Your task to perform on an android device: Open Amazon Image 0: 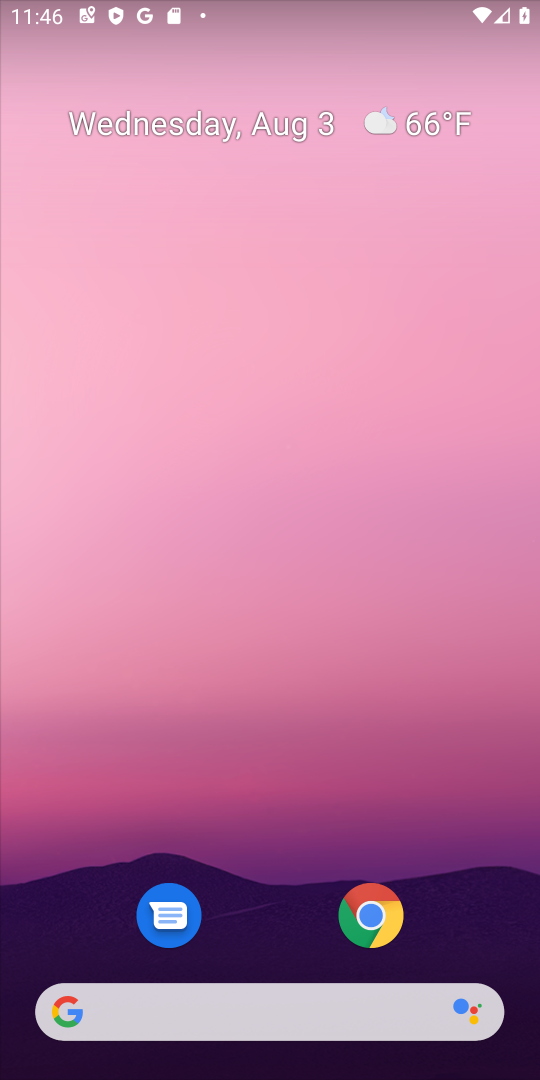
Step 0: drag from (276, 952) to (240, 31)
Your task to perform on an android device: Open Amazon Image 1: 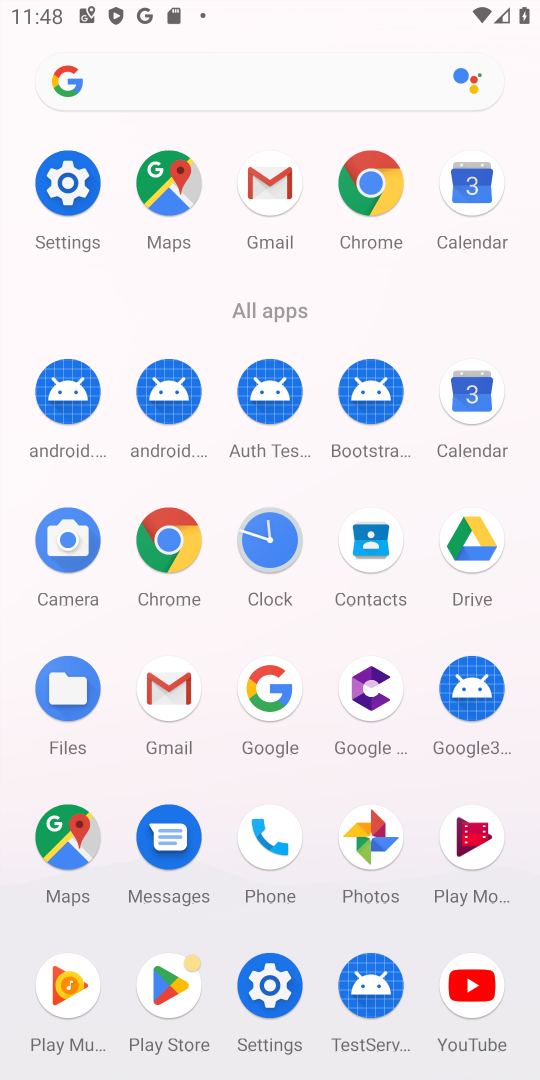
Step 1: click (356, 208)
Your task to perform on an android device: Open Amazon Image 2: 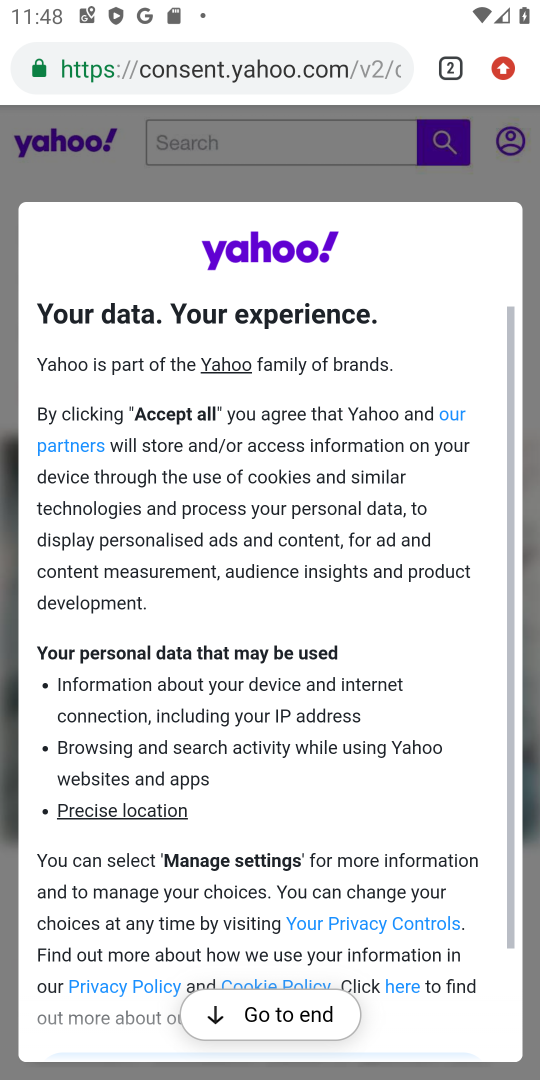
Step 2: click (95, 76)
Your task to perform on an android device: Open Amazon Image 3: 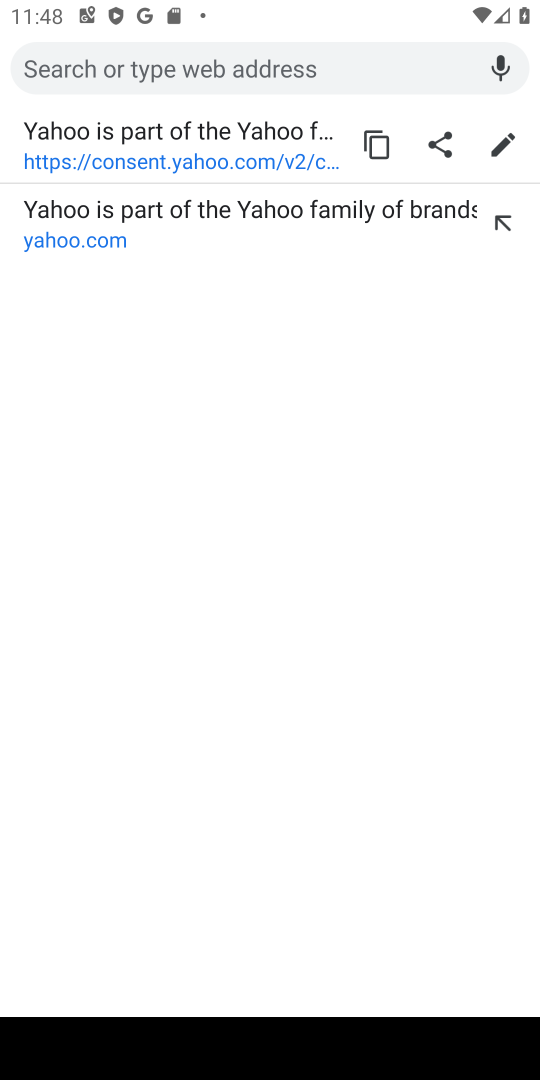
Step 3: type "Yahoo"
Your task to perform on an android device: Open Amazon Image 4: 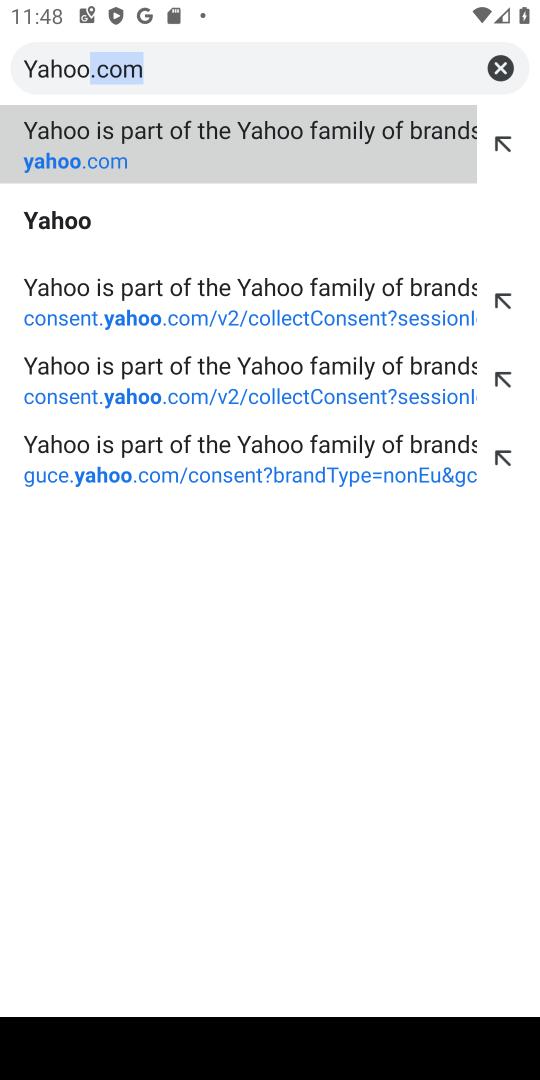
Step 4: type ""
Your task to perform on an android device: Open Amazon Image 5: 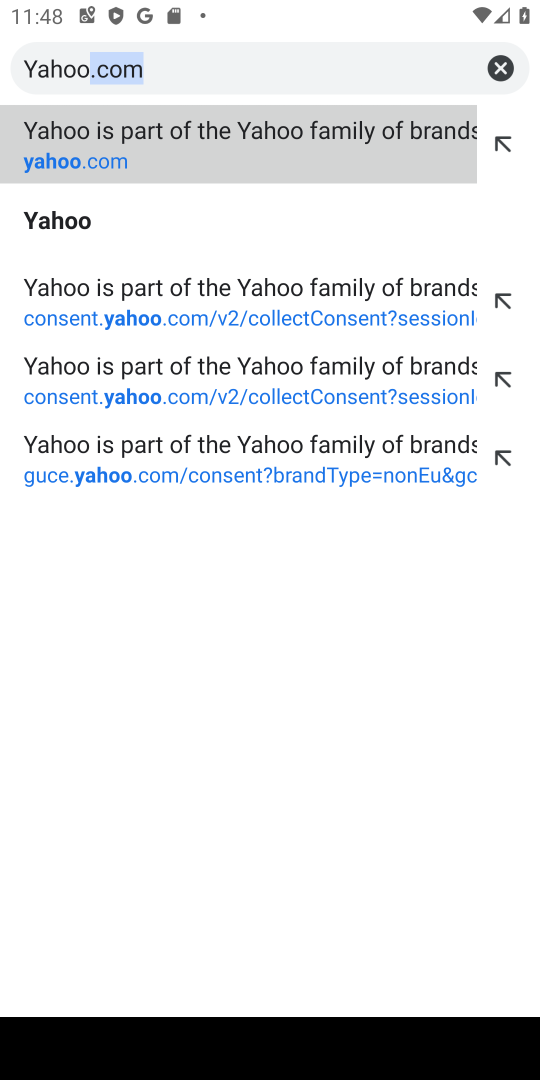
Step 5: click (508, 72)
Your task to perform on an android device: Open Amazon Image 6: 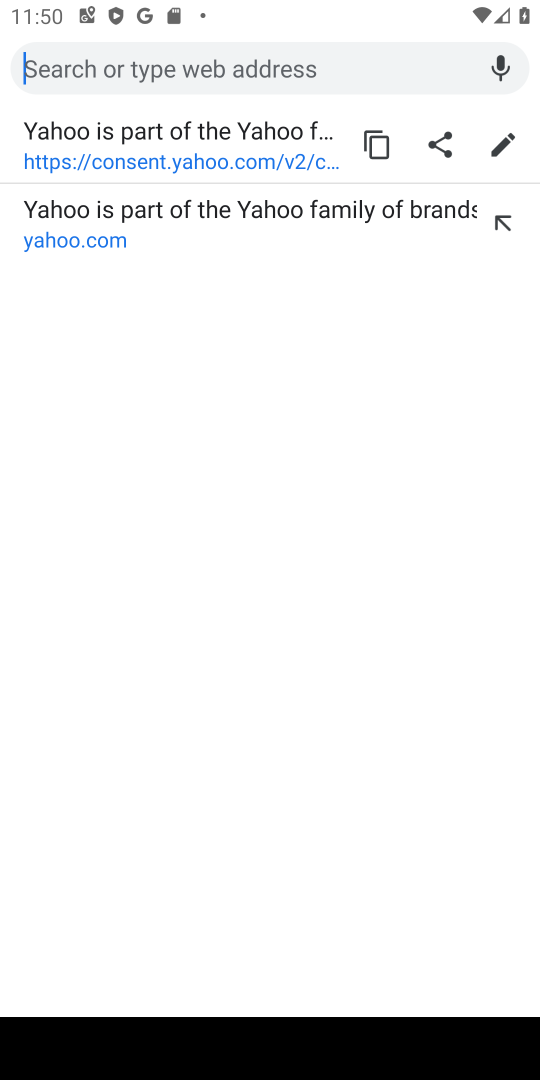
Step 6: type "amazon"
Your task to perform on an android device: Open Amazon Image 7: 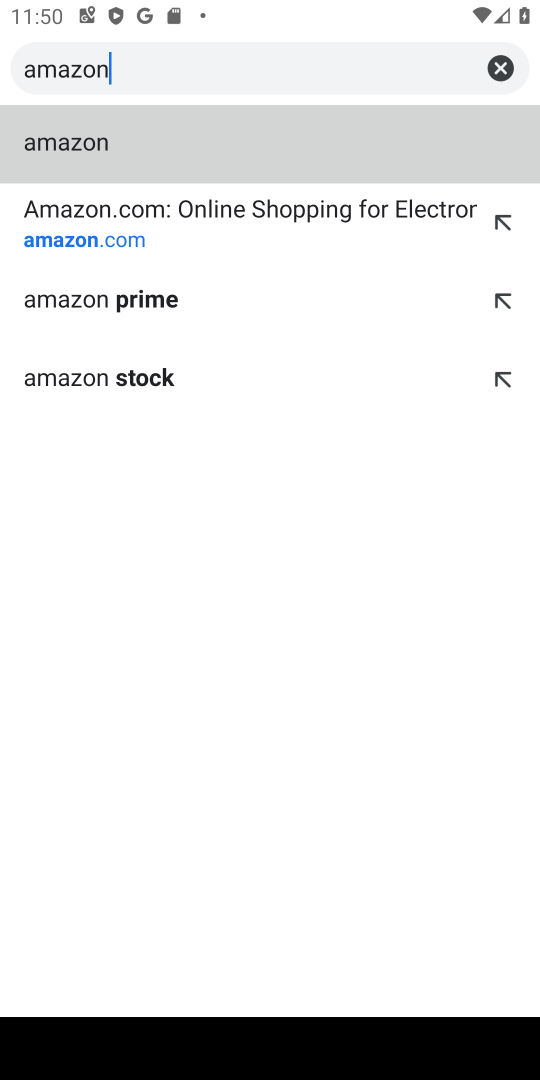
Step 7: click (285, 220)
Your task to perform on an android device: Open Amazon Image 8: 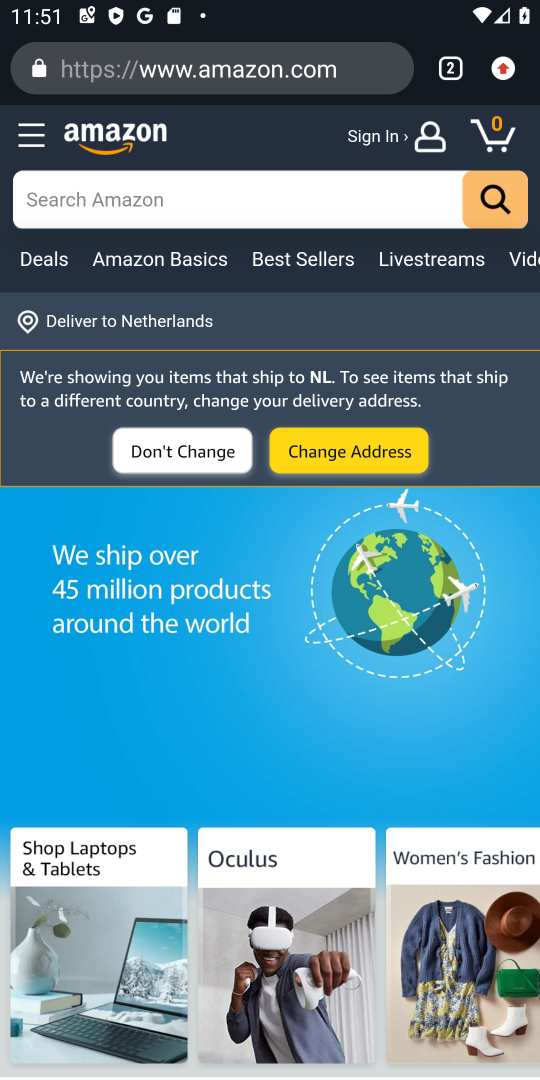
Step 8: task complete